Your task to perform on an android device: Open CNN.com Image 0: 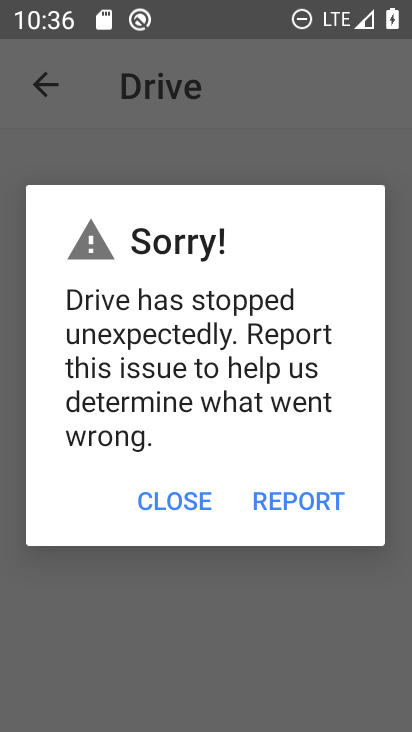
Step 0: press home button
Your task to perform on an android device: Open CNN.com Image 1: 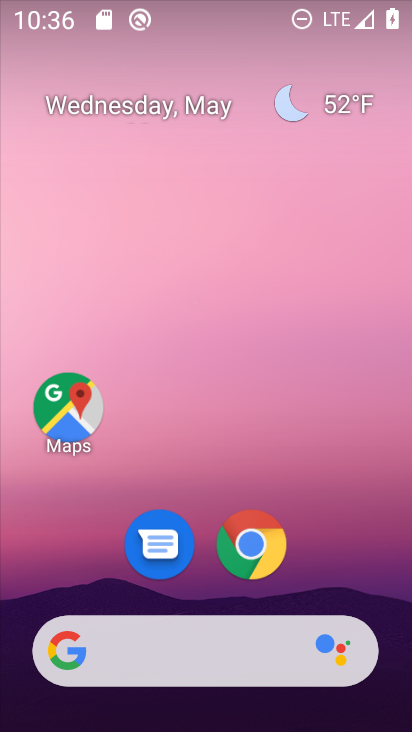
Step 1: click (269, 557)
Your task to perform on an android device: Open CNN.com Image 2: 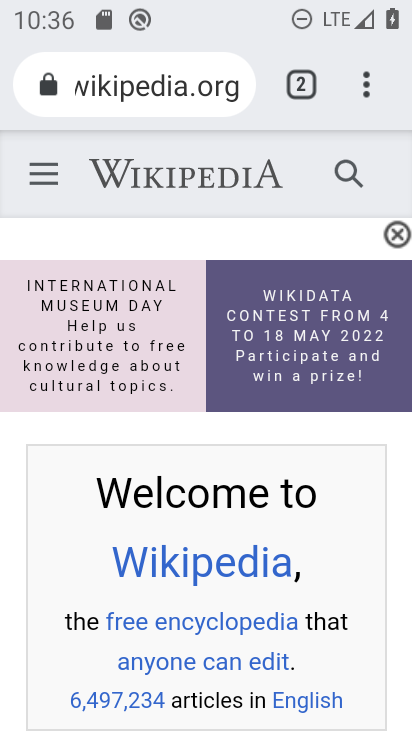
Step 2: click (160, 75)
Your task to perform on an android device: Open CNN.com Image 3: 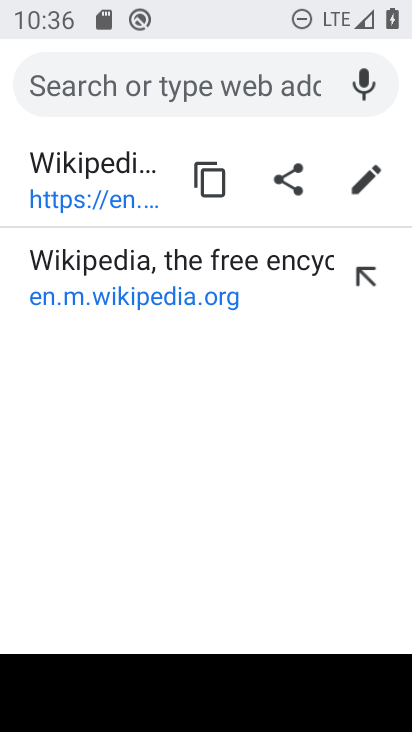
Step 3: type "cnn.com"
Your task to perform on an android device: Open CNN.com Image 4: 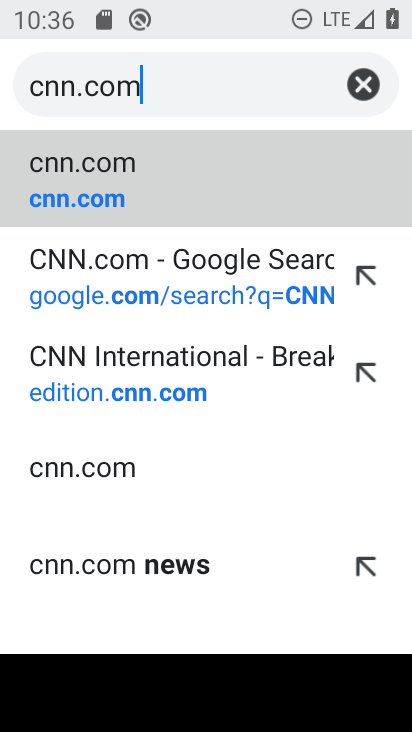
Step 4: click (105, 156)
Your task to perform on an android device: Open CNN.com Image 5: 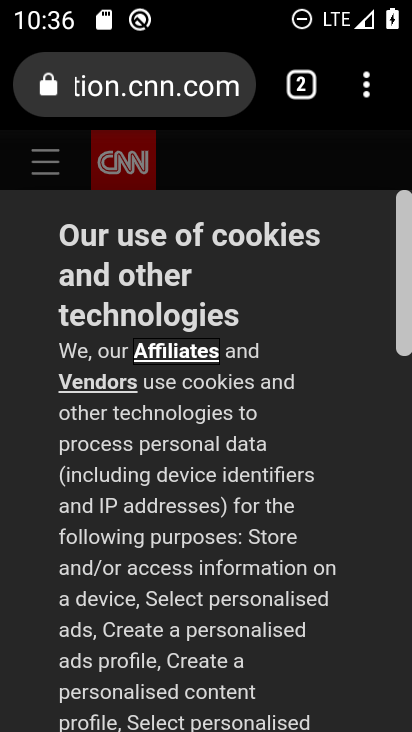
Step 5: task complete